Your task to perform on an android device: What's the weather? Image 0: 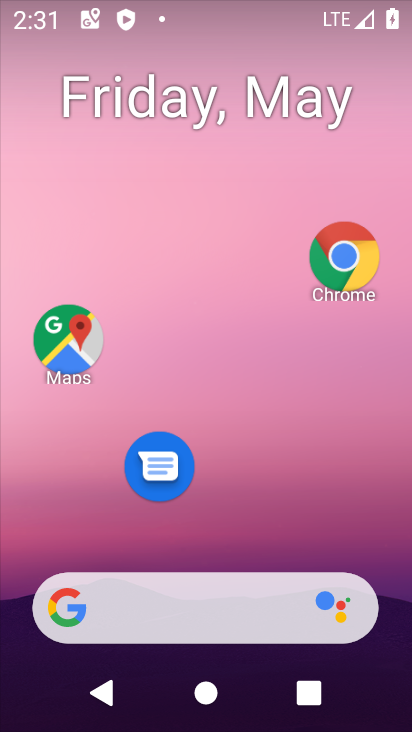
Step 0: click (332, 273)
Your task to perform on an android device: What's the weather? Image 1: 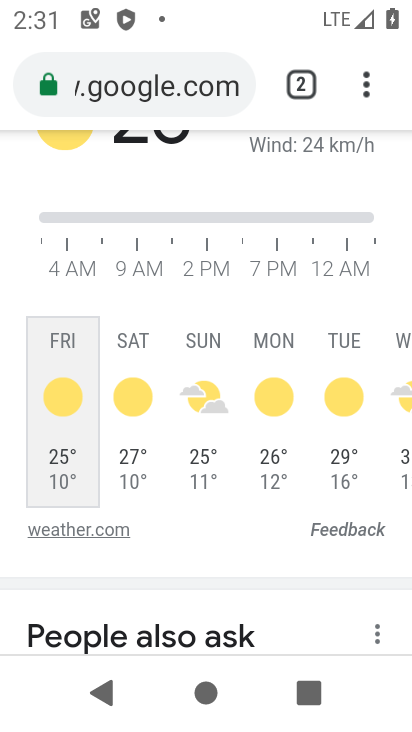
Step 1: click (185, 76)
Your task to perform on an android device: What's the weather? Image 2: 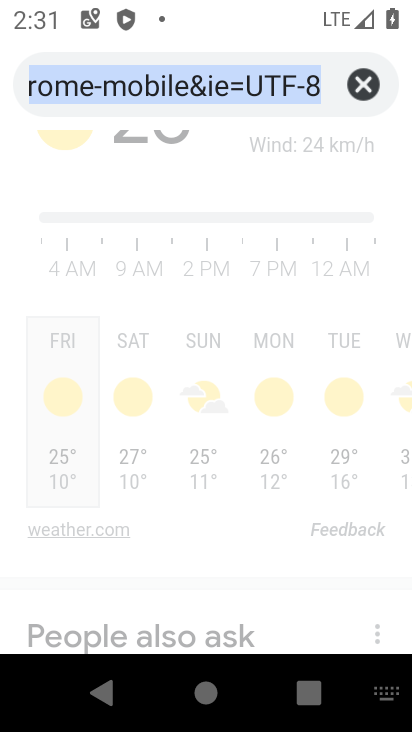
Step 2: click (362, 75)
Your task to perform on an android device: What's the weather? Image 3: 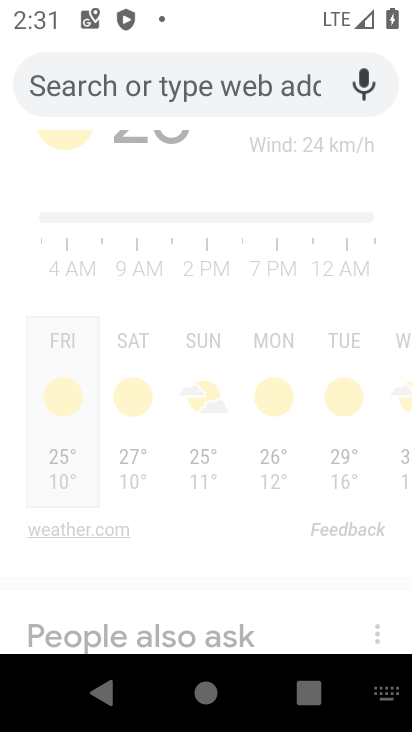
Step 3: type "What's the weather?"
Your task to perform on an android device: What's the weather? Image 4: 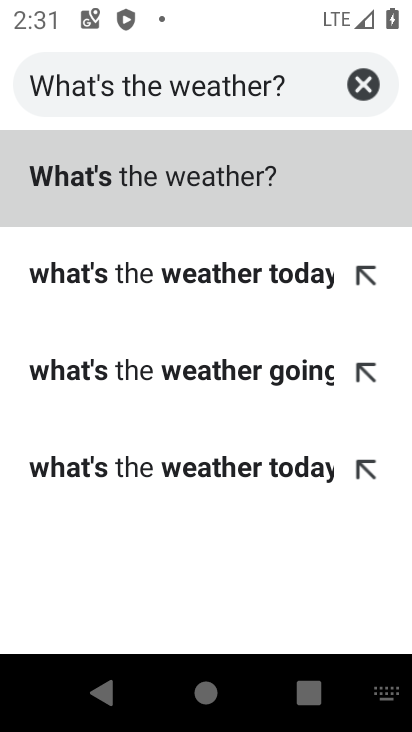
Step 4: click (156, 191)
Your task to perform on an android device: What's the weather? Image 5: 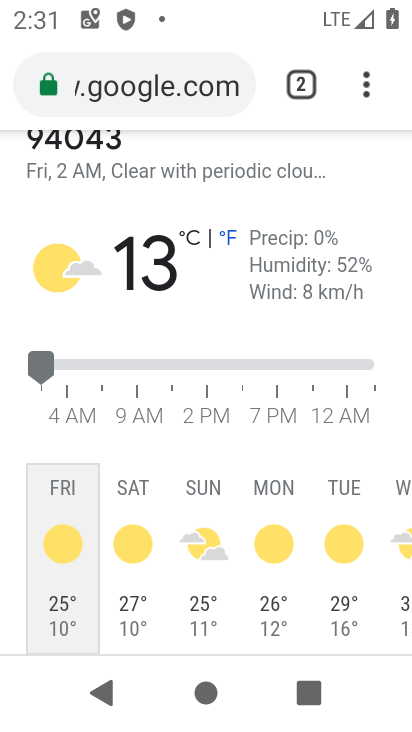
Step 5: task complete